Your task to perform on an android device: delete a single message in the gmail app Image 0: 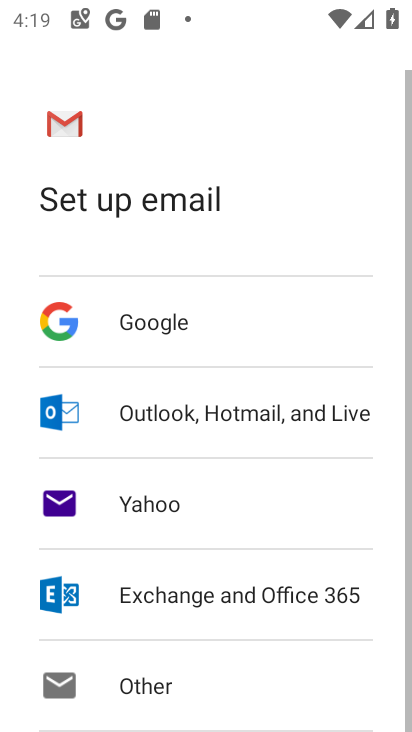
Step 0: press home button
Your task to perform on an android device: delete a single message in the gmail app Image 1: 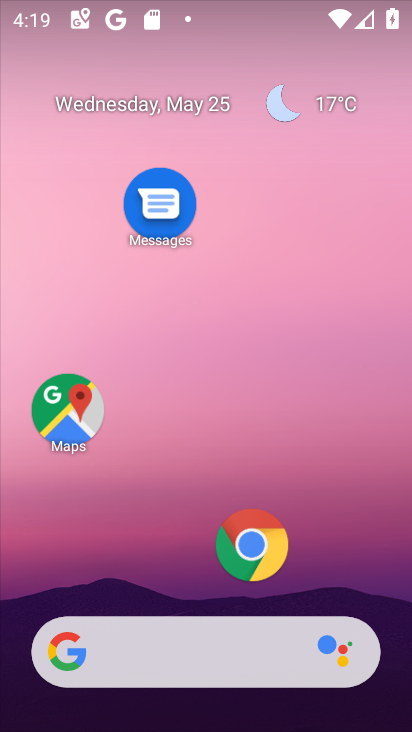
Step 1: drag from (332, 553) to (304, 2)
Your task to perform on an android device: delete a single message in the gmail app Image 2: 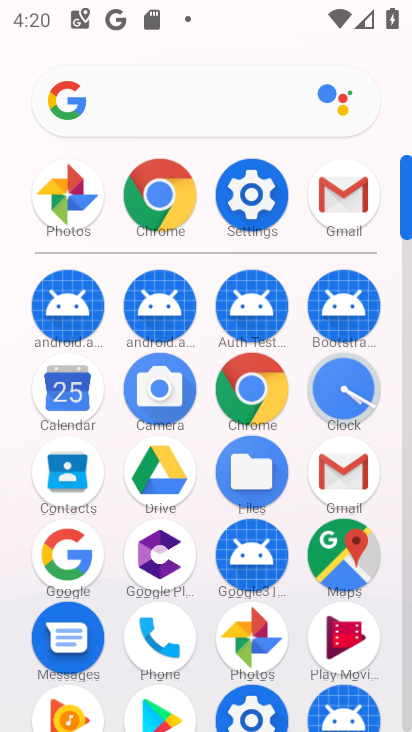
Step 2: click (348, 186)
Your task to perform on an android device: delete a single message in the gmail app Image 3: 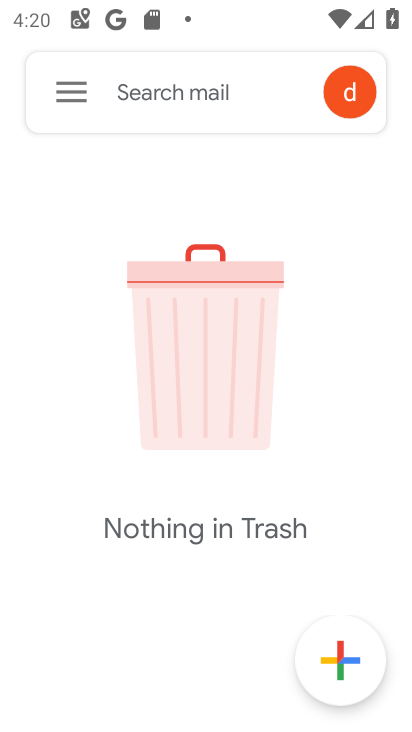
Step 3: click (77, 90)
Your task to perform on an android device: delete a single message in the gmail app Image 4: 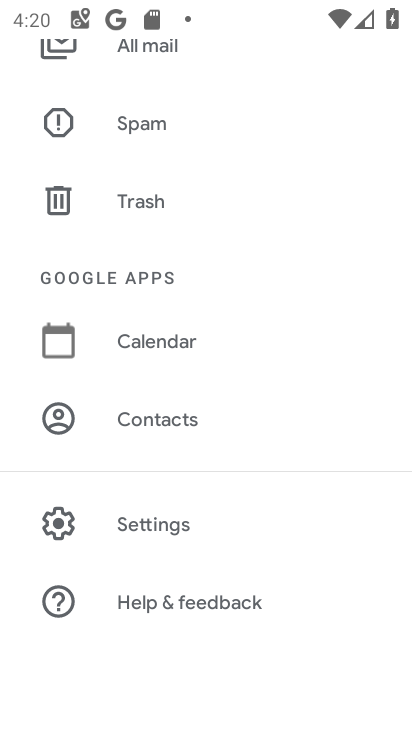
Step 4: click (162, 47)
Your task to perform on an android device: delete a single message in the gmail app Image 5: 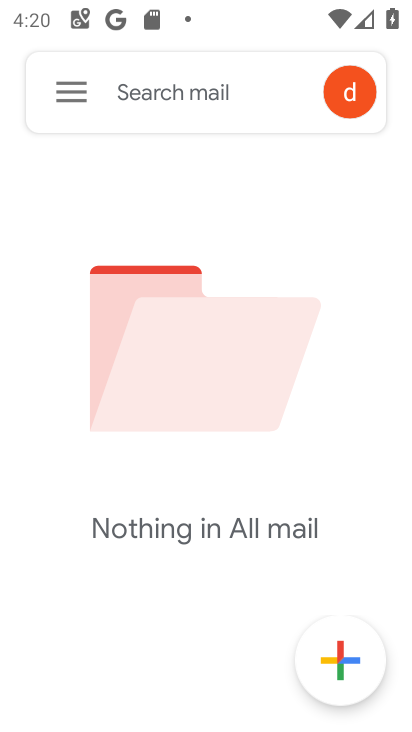
Step 5: task complete